Your task to perform on an android device: Open ESPN.com Image 0: 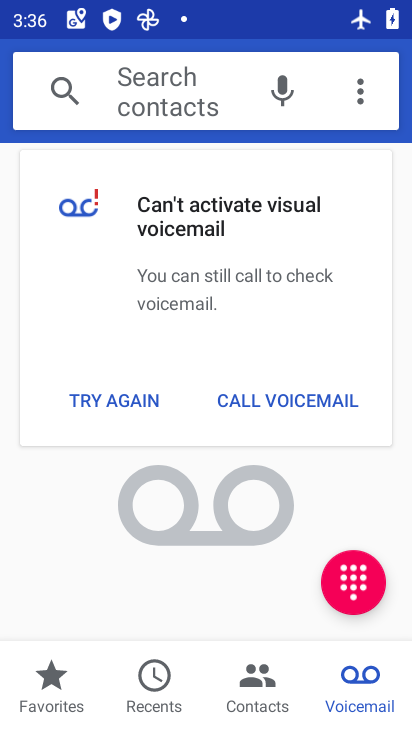
Step 0: press home button
Your task to perform on an android device: Open ESPN.com Image 1: 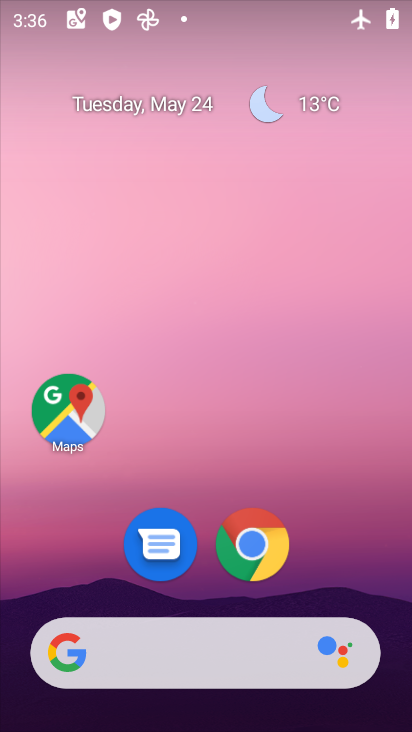
Step 1: click (250, 546)
Your task to perform on an android device: Open ESPN.com Image 2: 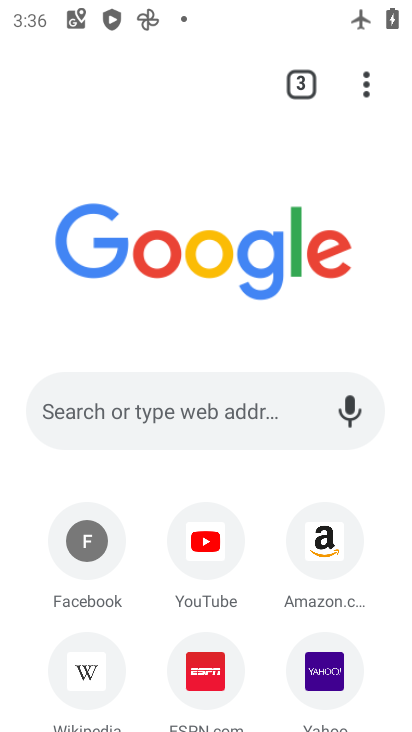
Step 2: drag from (383, 588) to (398, 256)
Your task to perform on an android device: Open ESPN.com Image 3: 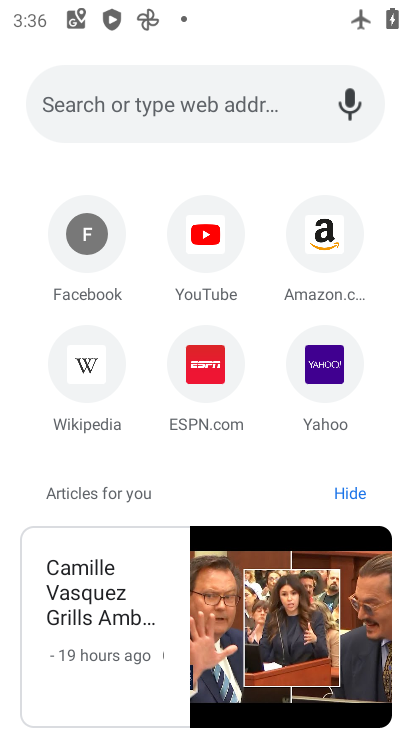
Step 3: click (209, 367)
Your task to perform on an android device: Open ESPN.com Image 4: 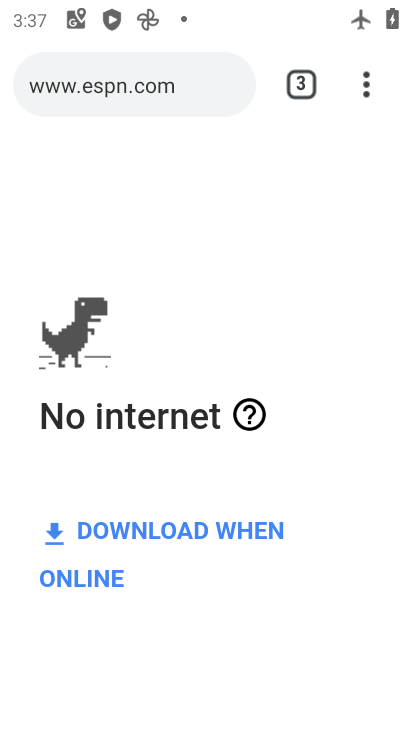
Step 4: task complete